Your task to perform on an android device: What's the weather like in Sydney? Image 0: 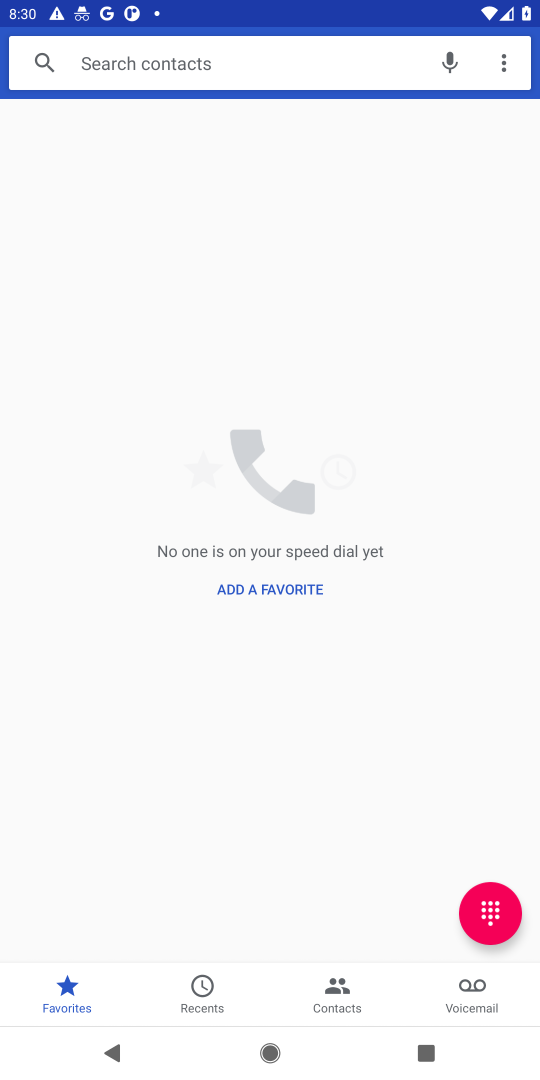
Step 0: press home button
Your task to perform on an android device: What's the weather like in Sydney? Image 1: 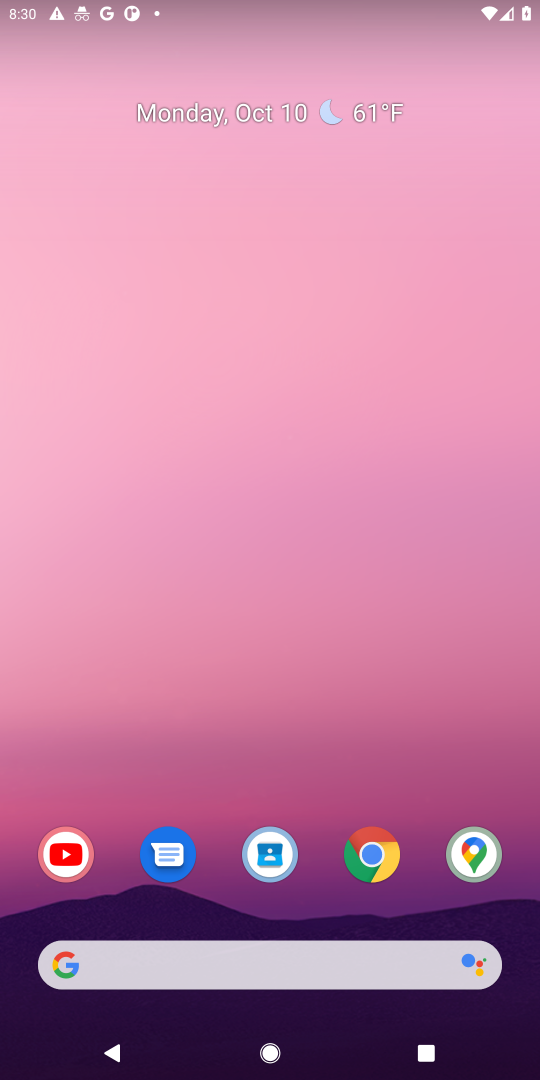
Step 1: click (375, 851)
Your task to perform on an android device: What's the weather like in Sydney? Image 2: 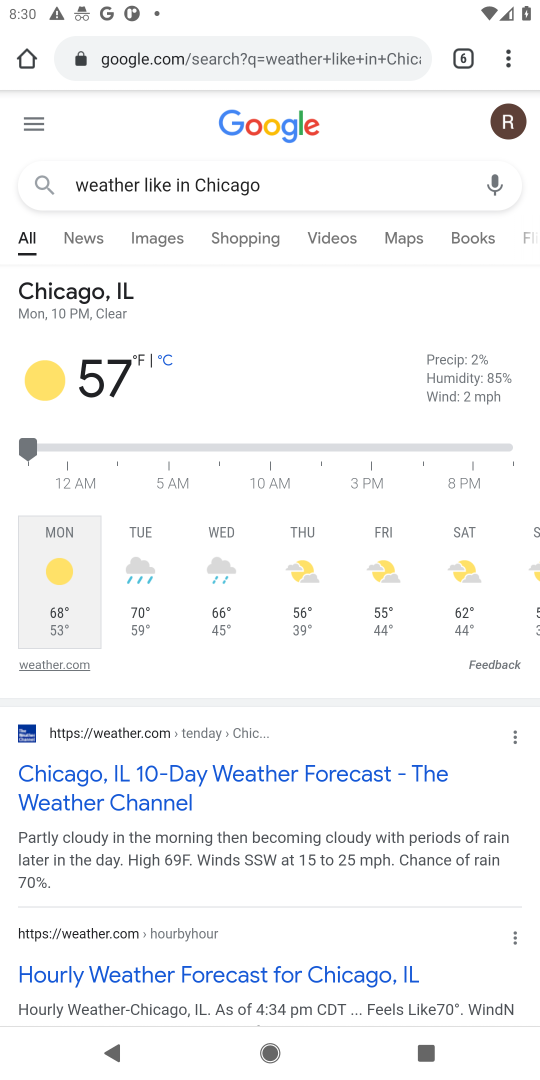
Step 2: click (356, 47)
Your task to perform on an android device: What's the weather like in Sydney? Image 3: 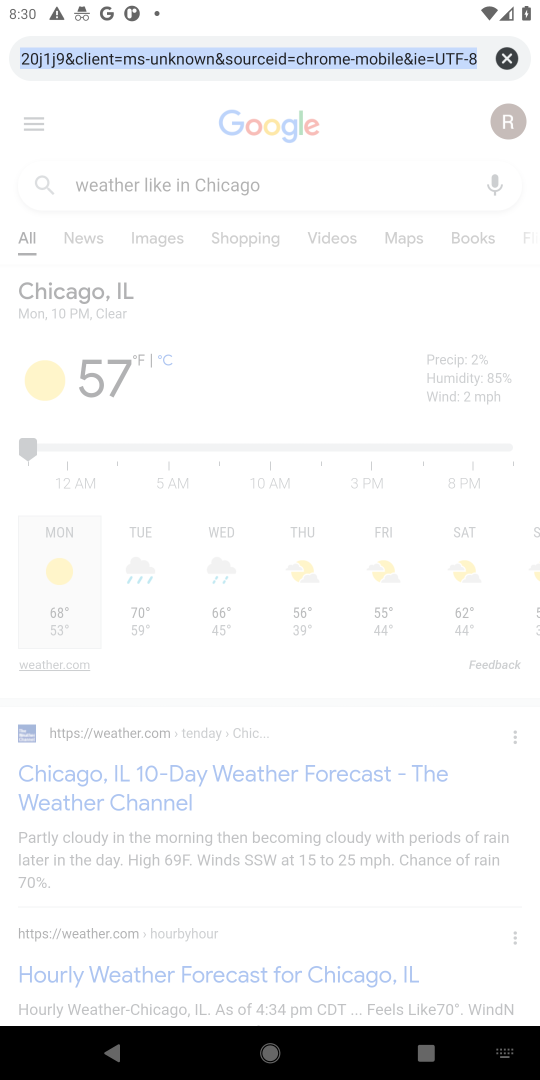
Step 3: click (508, 56)
Your task to perform on an android device: What's the weather like in Sydney? Image 4: 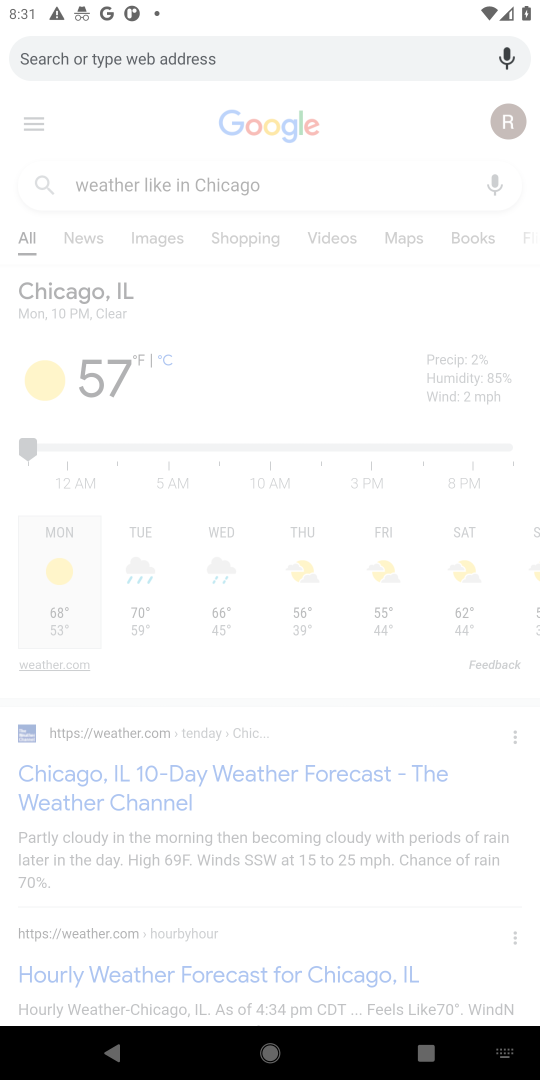
Step 4: type "weather like in Sydney"
Your task to perform on an android device: What's the weather like in Sydney? Image 5: 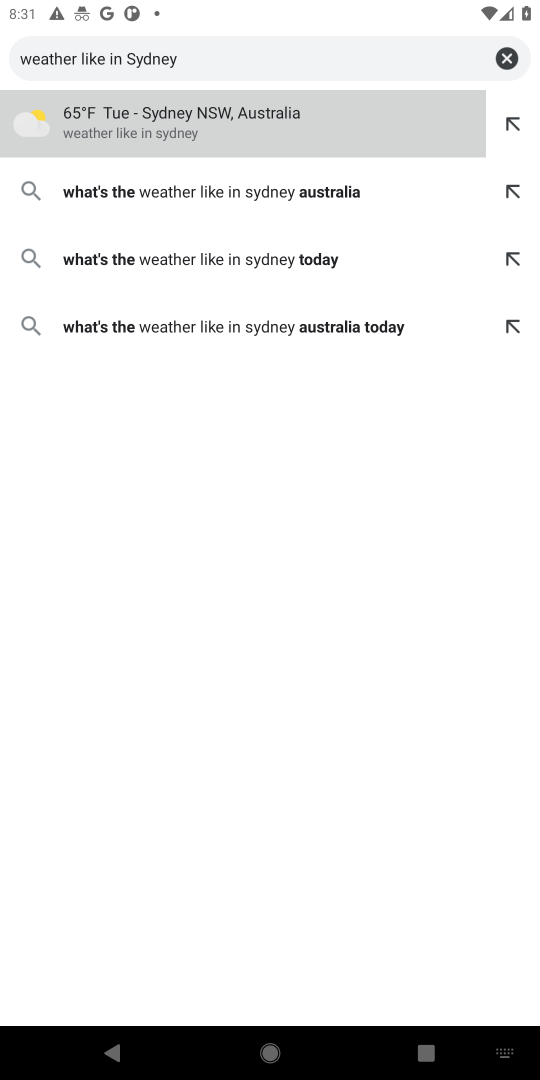
Step 5: press enter
Your task to perform on an android device: What's the weather like in Sydney? Image 6: 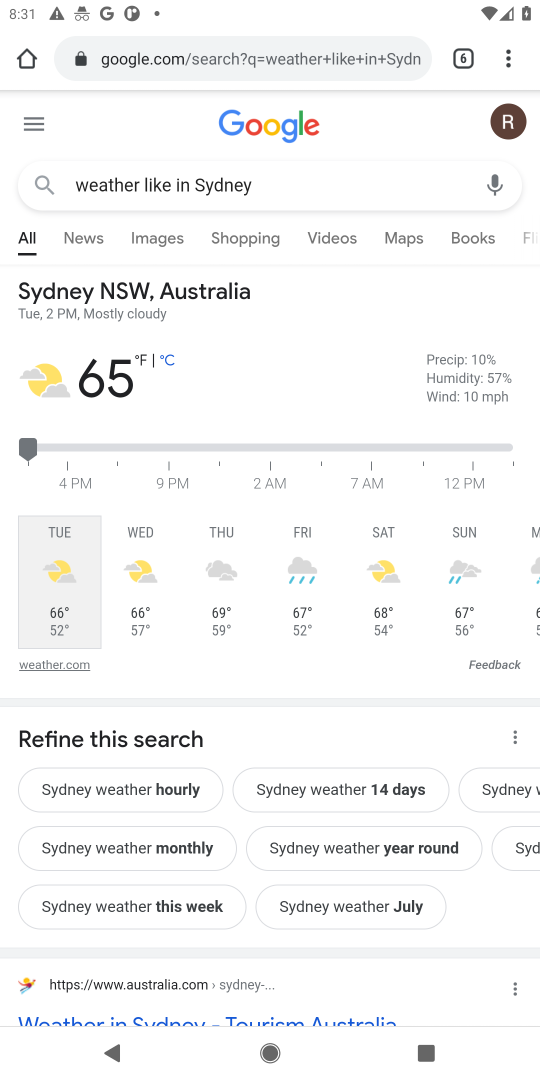
Step 6: task complete